Your task to perform on an android device: toggle notification dots Image 0: 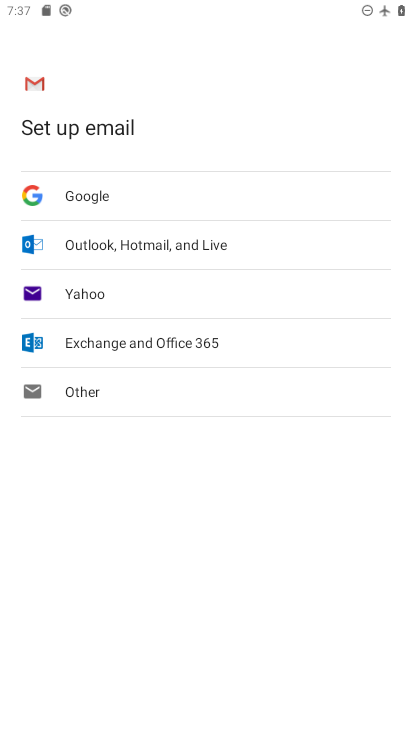
Step 0: press home button
Your task to perform on an android device: toggle notification dots Image 1: 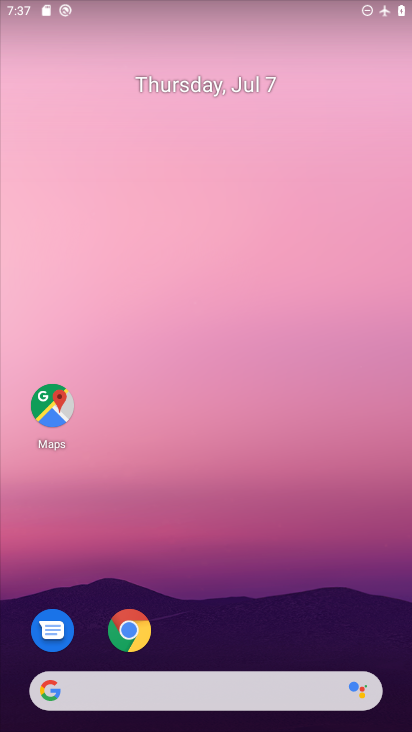
Step 1: drag from (219, 559) to (179, 14)
Your task to perform on an android device: toggle notification dots Image 2: 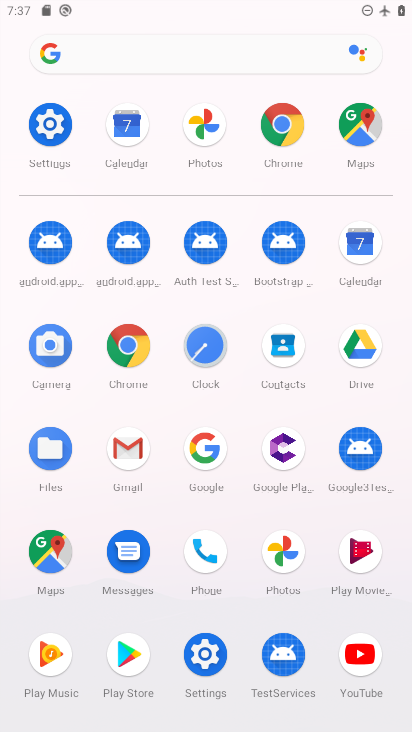
Step 2: click (51, 122)
Your task to perform on an android device: toggle notification dots Image 3: 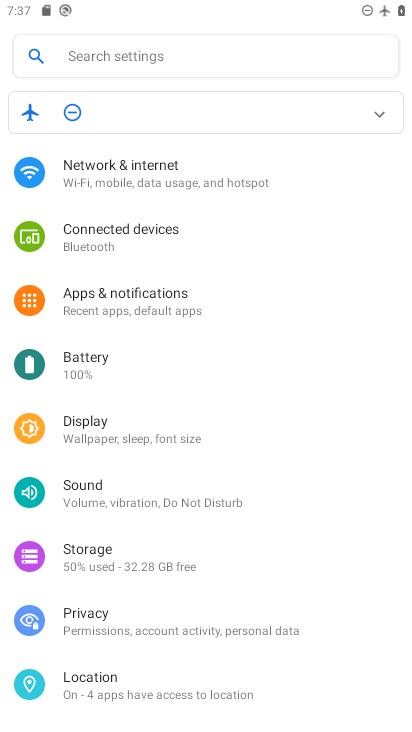
Step 3: click (126, 289)
Your task to perform on an android device: toggle notification dots Image 4: 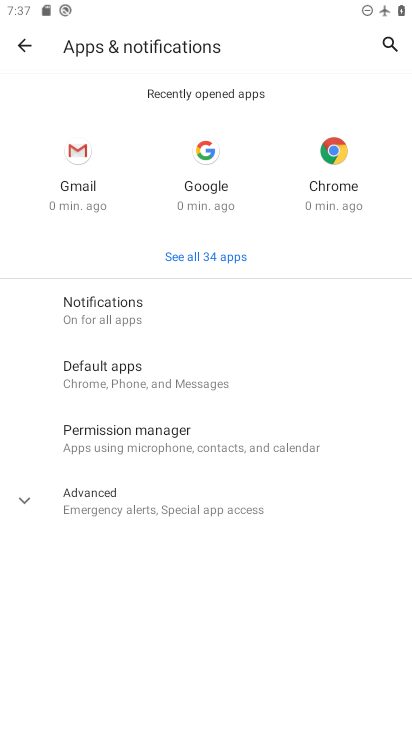
Step 4: click (110, 309)
Your task to perform on an android device: toggle notification dots Image 5: 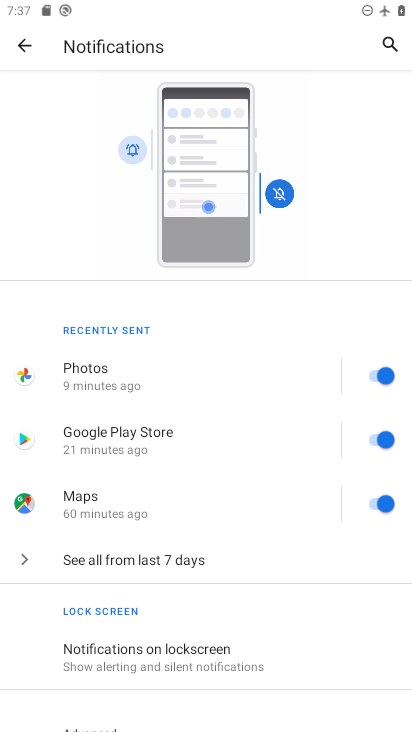
Step 5: drag from (273, 610) to (275, 275)
Your task to perform on an android device: toggle notification dots Image 6: 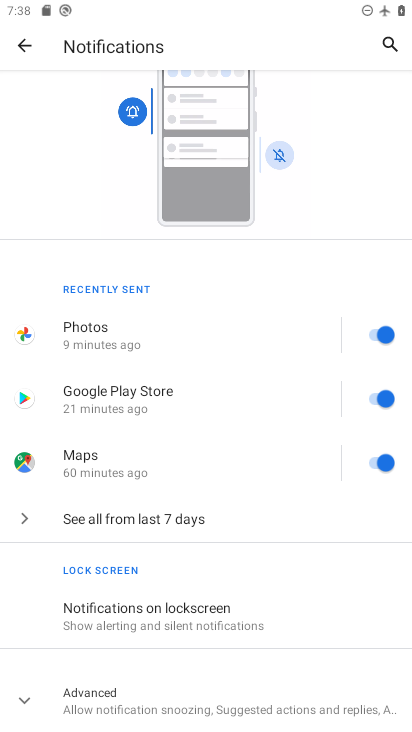
Step 6: click (68, 699)
Your task to perform on an android device: toggle notification dots Image 7: 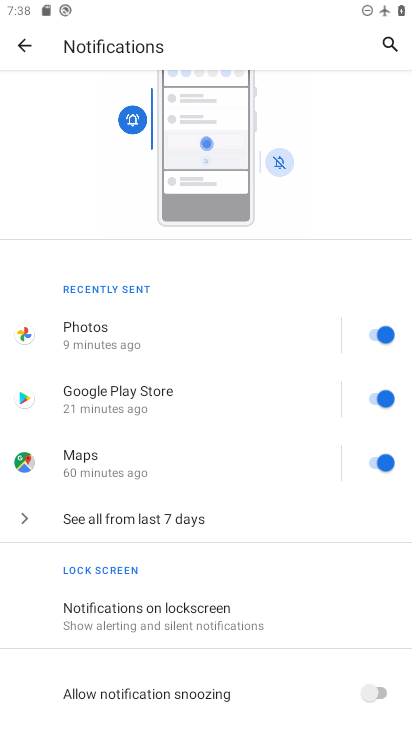
Step 7: drag from (222, 669) to (222, 365)
Your task to perform on an android device: toggle notification dots Image 8: 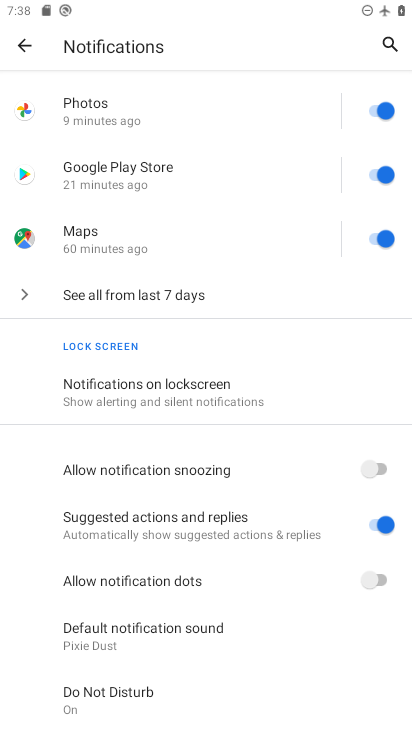
Step 8: click (371, 584)
Your task to perform on an android device: toggle notification dots Image 9: 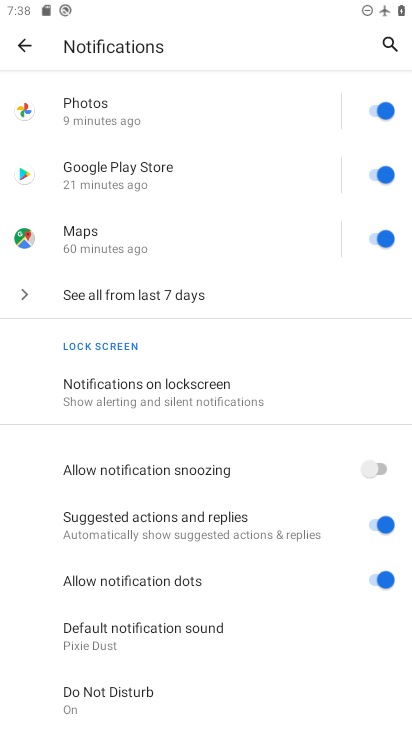
Step 9: task complete